Your task to perform on an android device: Show me popular games on the Play Store Image 0: 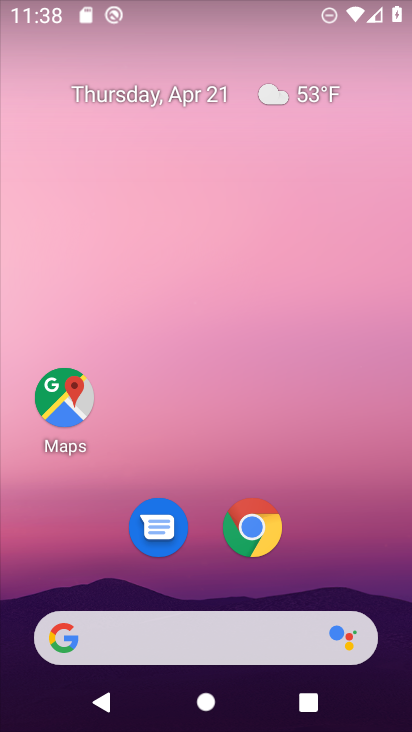
Step 0: drag from (361, 557) to (368, 157)
Your task to perform on an android device: Show me popular games on the Play Store Image 1: 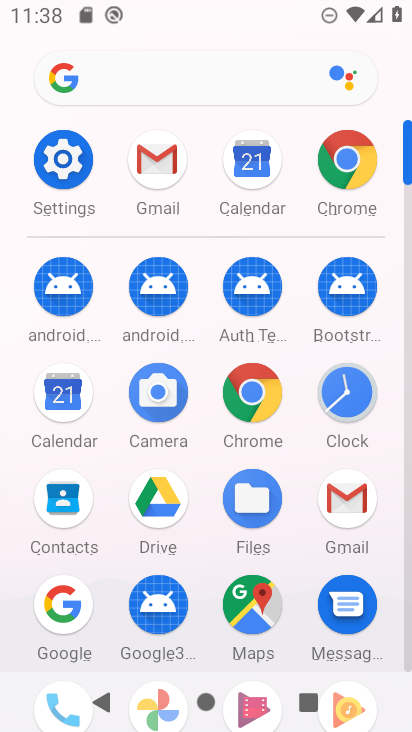
Step 1: drag from (393, 508) to (400, 160)
Your task to perform on an android device: Show me popular games on the Play Store Image 2: 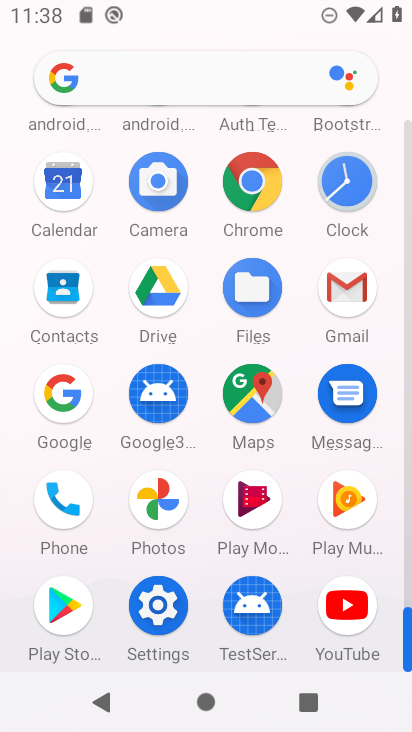
Step 2: click (67, 598)
Your task to perform on an android device: Show me popular games on the Play Store Image 3: 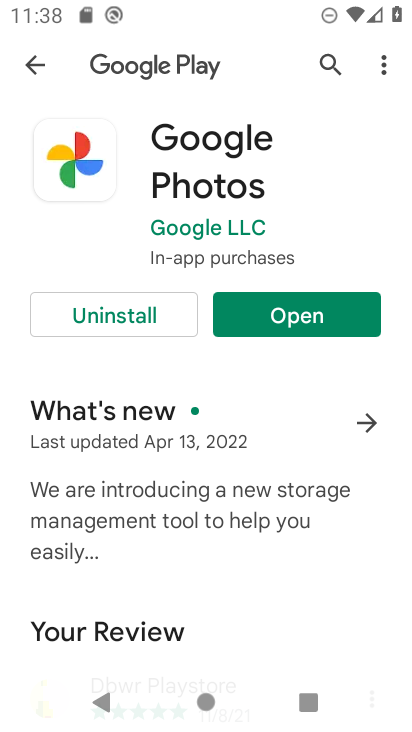
Step 3: click (29, 68)
Your task to perform on an android device: Show me popular games on the Play Store Image 4: 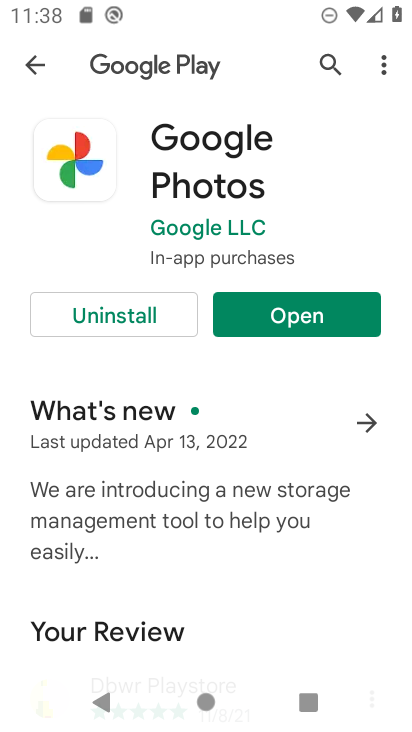
Step 4: click (29, 61)
Your task to perform on an android device: Show me popular games on the Play Store Image 5: 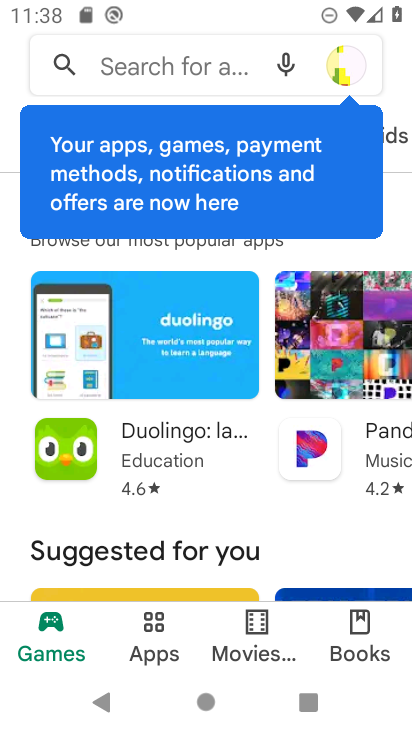
Step 5: task complete